Your task to perform on an android device: Check out the best rated 4k TV on Best Buy. Image 0: 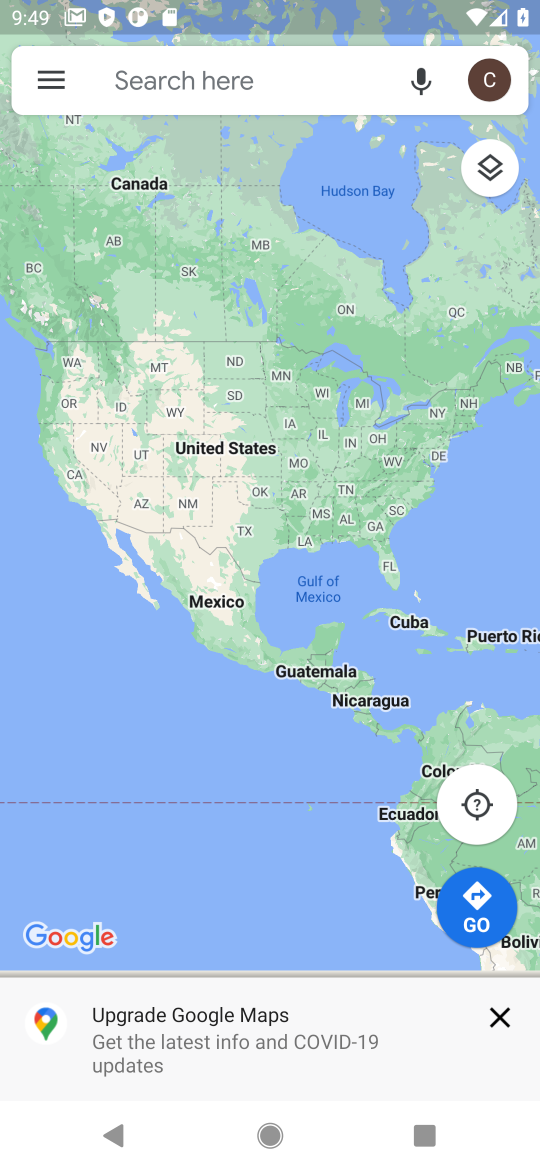
Step 0: press home button
Your task to perform on an android device: Check out the best rated 4k TV on Best Buy. Image 1: 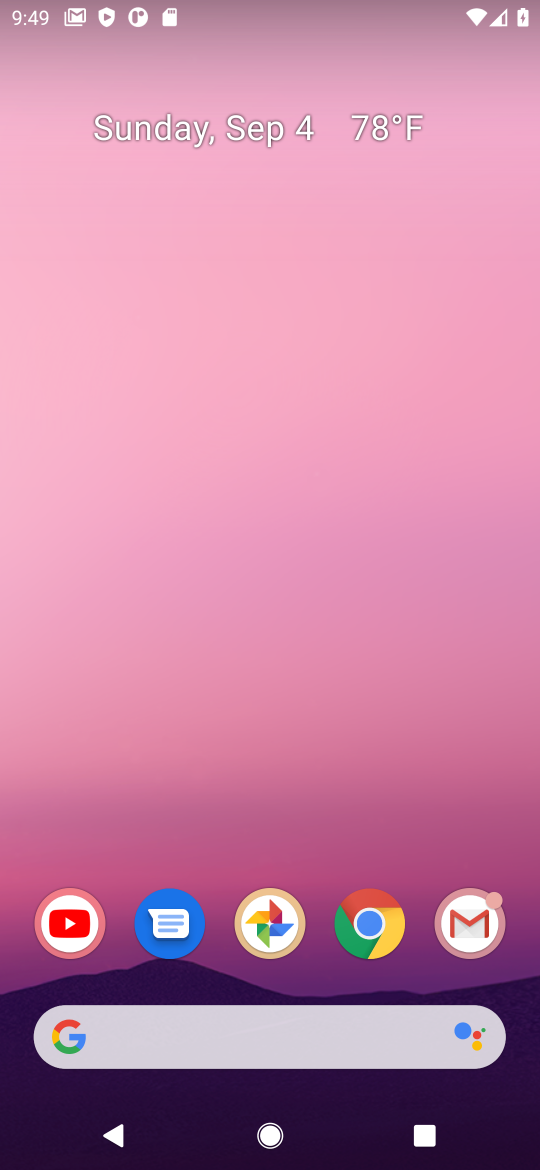
Step 1: click (162, 1040)
Your task to perform on an android device: Check out the best rated 4k TV on Best Buy. Image 2: 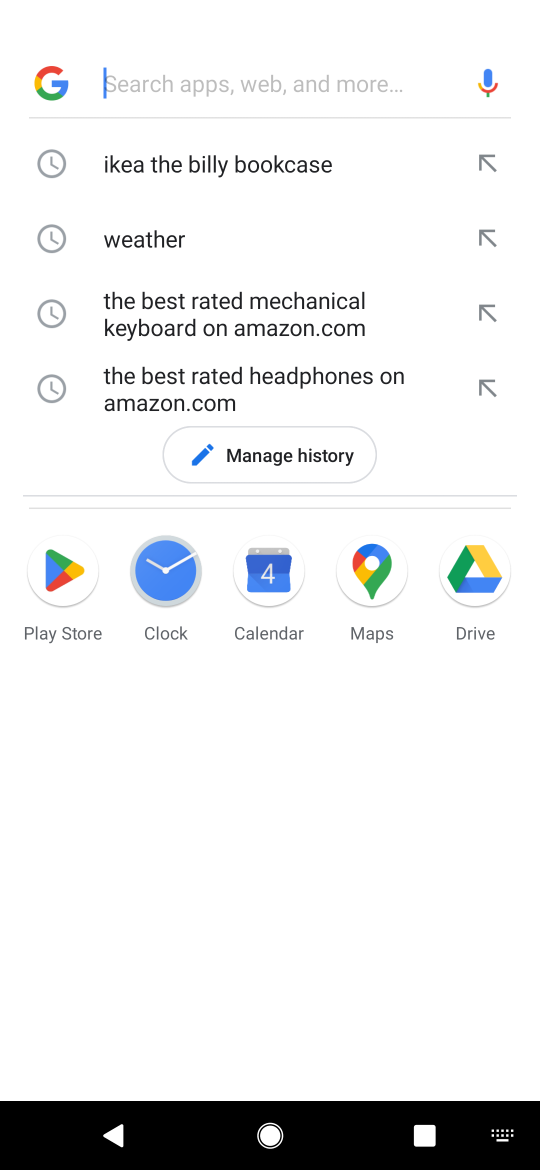
Step 2: type " the best rated 4k TV on Best Buy."
Your task to perform on an android device: Check out the best rated 4k TV on Best Buy. Image 3: 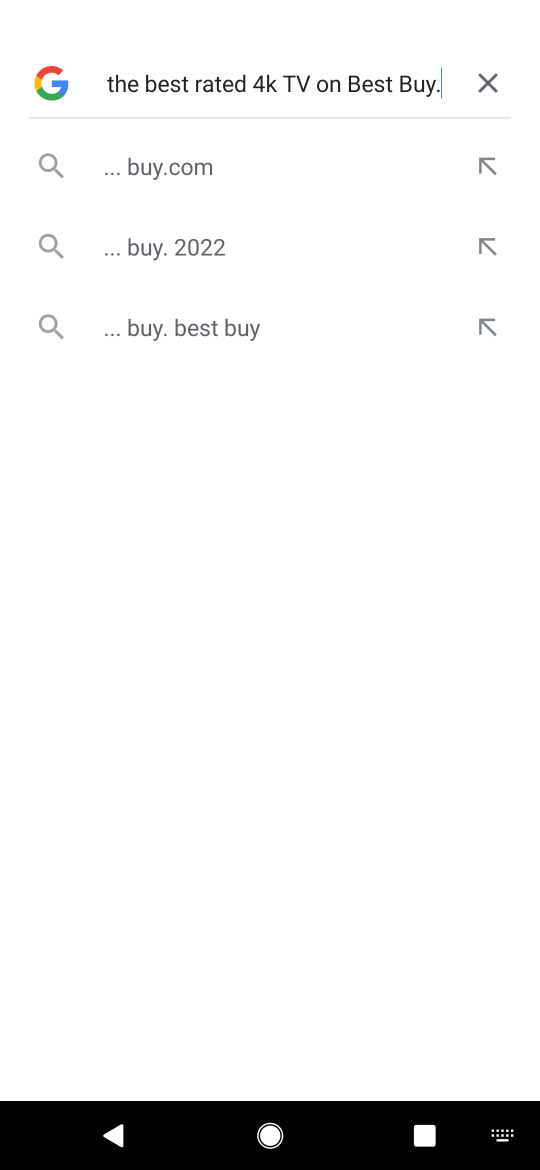
Step 3: type ""
Your task to perform on an android device: Check out the best rated 4k TV on Best Buy. Image 4: 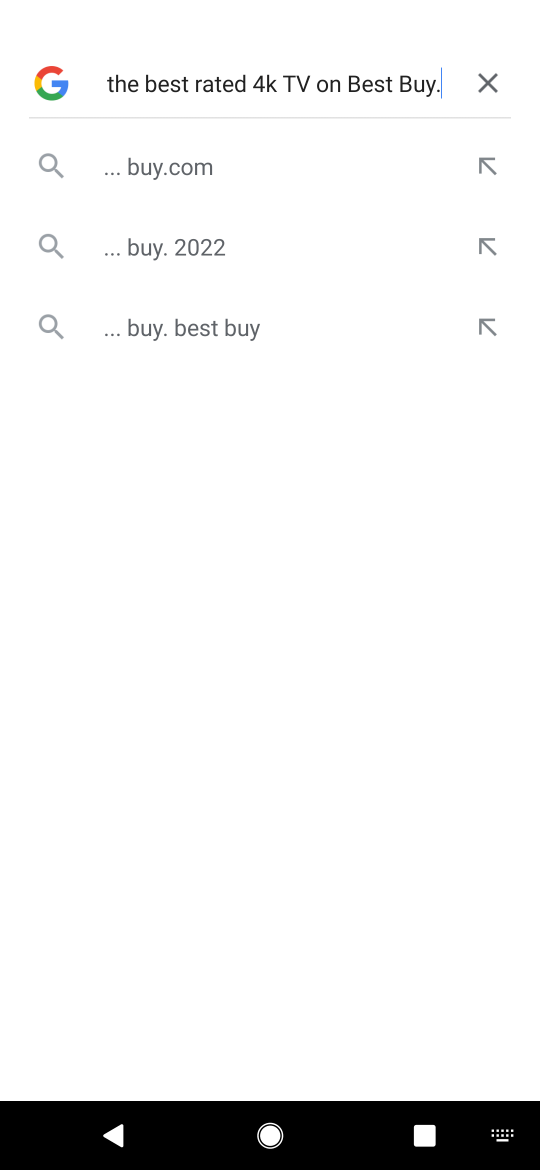
Step 4: type ""
Your task to perform on an android device: Check out the best rated 4k TV on Best Buy. Image 5: 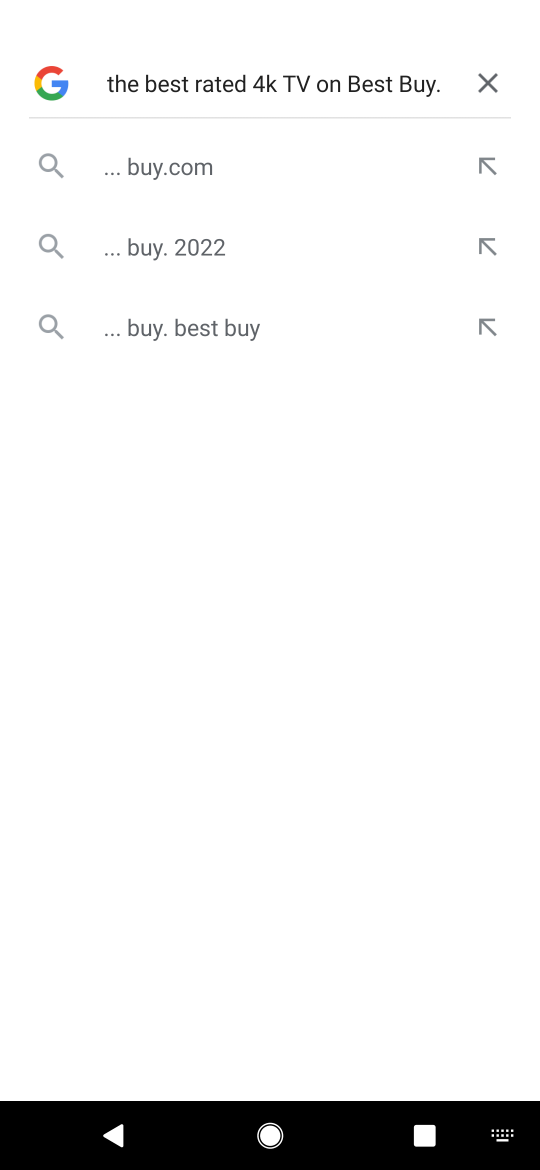
Step 5: click (167, 180)
Your task to perform on an android device: Check out the best rated 4k TV on Best Buy. Image 6: 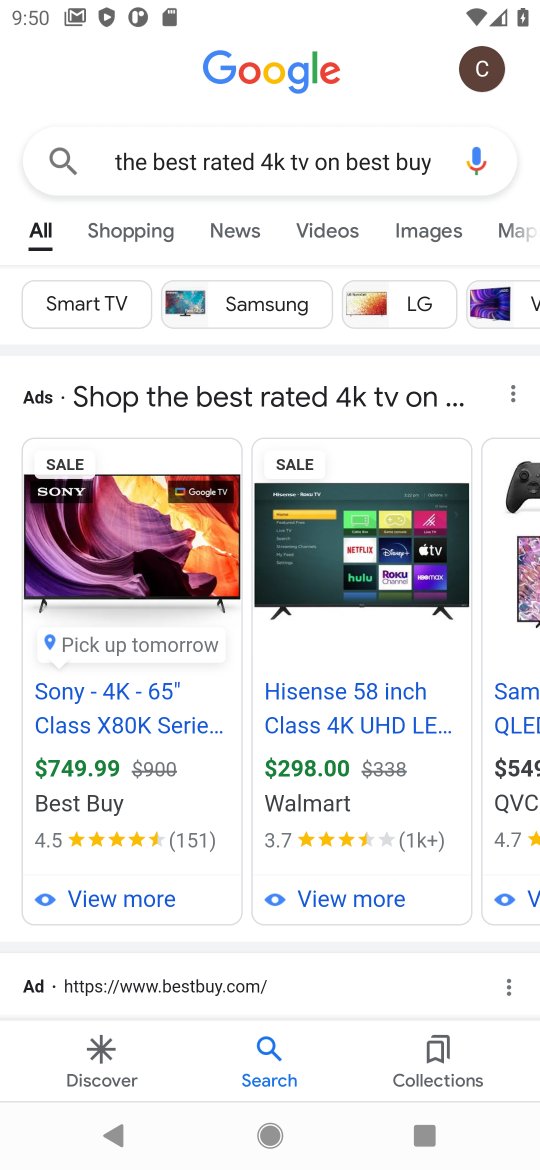
Step 6: task complete